Your task to perform on an android device: open wifi settings Image 0: 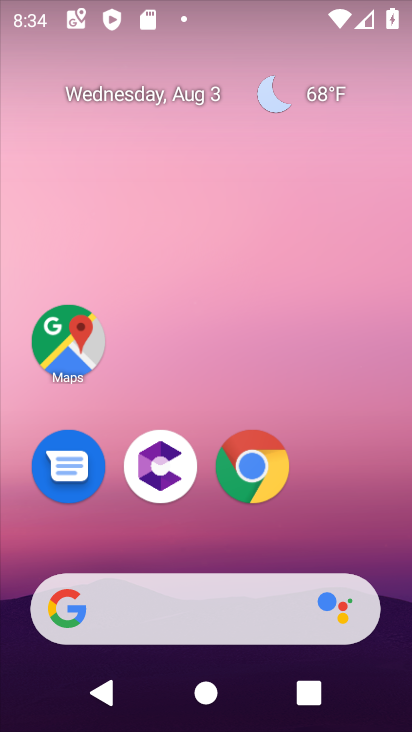
Step 0: drag from (357, 534) to (349, 16)
Your task to perform on an android device: open wifi settings Image 1: 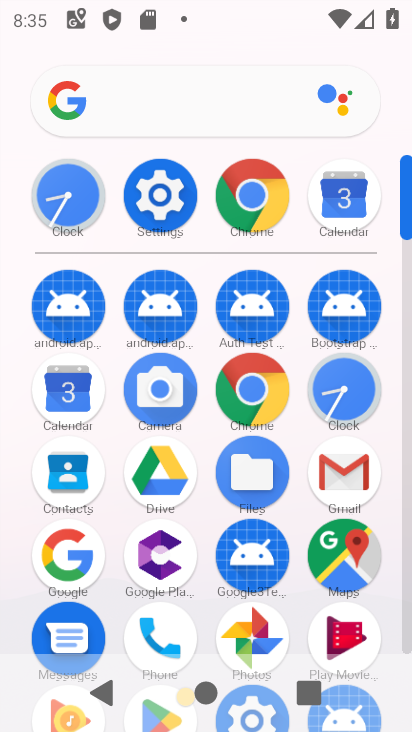
Step 1: click (163, 194)
Your task to perform on an android device: open wifi settings Image 2: 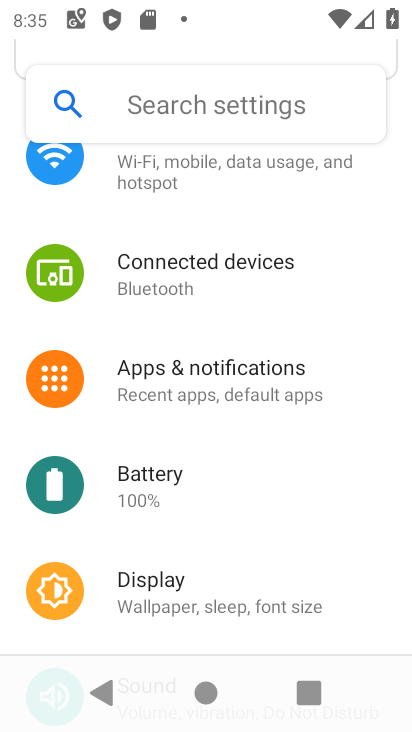
Step 2: click (199, 176)
Your task to perform on an android device: open wifi settings Image 3: 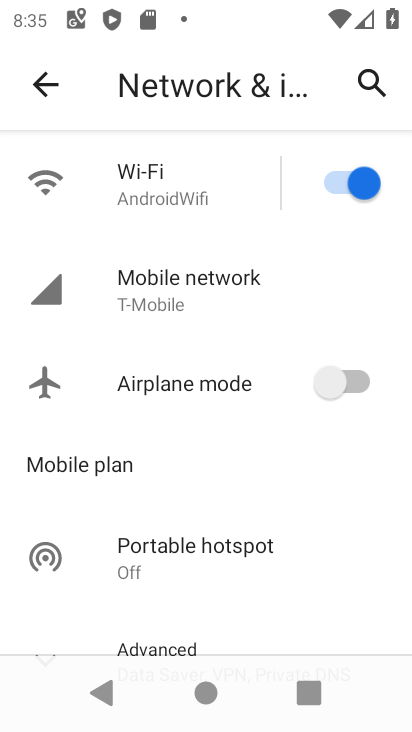
Step 3: click (150, 188)
Your task to perform on an android device: open wifi settings Image 4: 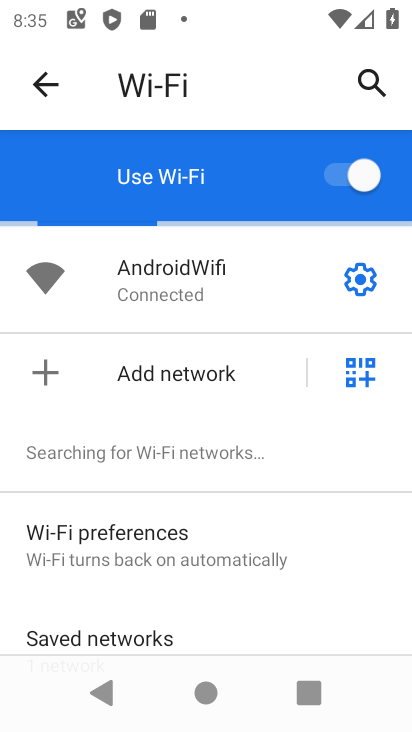
Step 4: click (353, 274)
Your task to perform on an android device: open wifi settings Image 5: 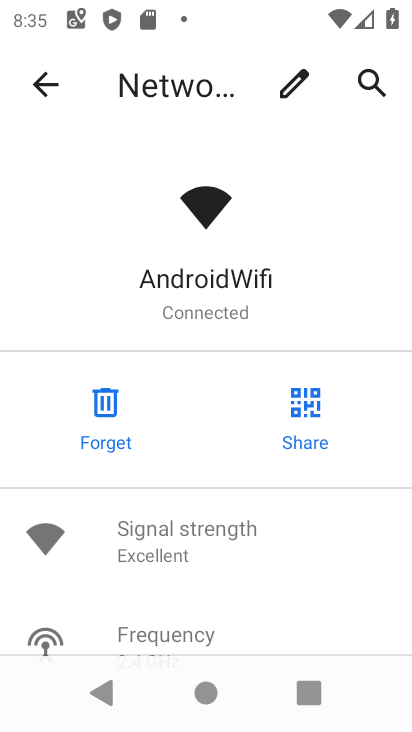
Step 5: task complete